Your task to perform on an android device: Turn on the flashlight Image 0: 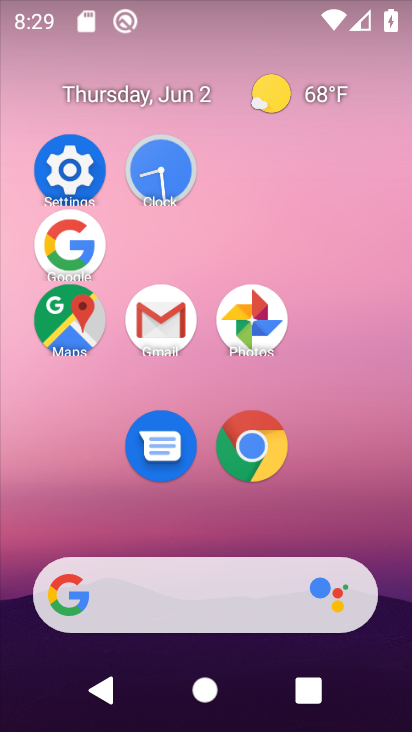
Step 0: drag from (253, 3) to (312, 480)
Your task to perform on an android device: Turn on the flashlight Image 1: 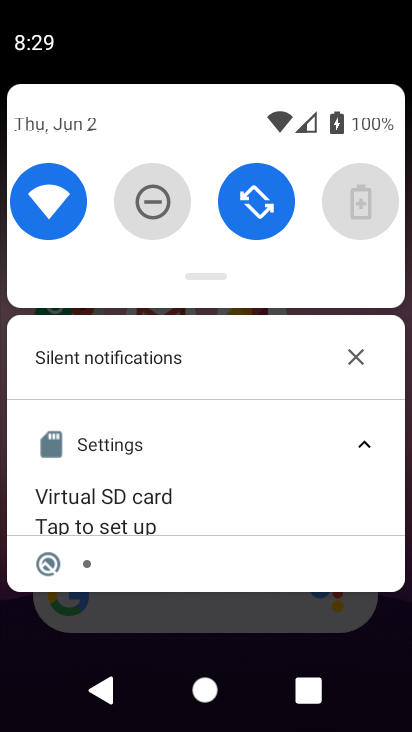
Step 1: task complete